Your task to perform on an android device: Open Wikipedia Image 0: 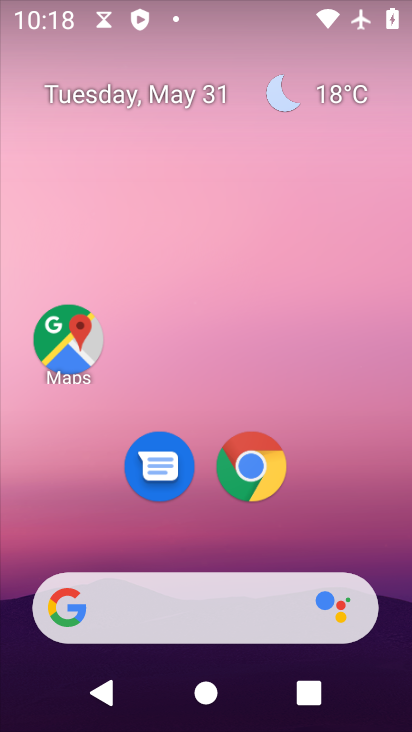
Step 0: drag from (393, 577) to (281, 1)
Your task to perform on an android device: Open Wikipedia Image 1: 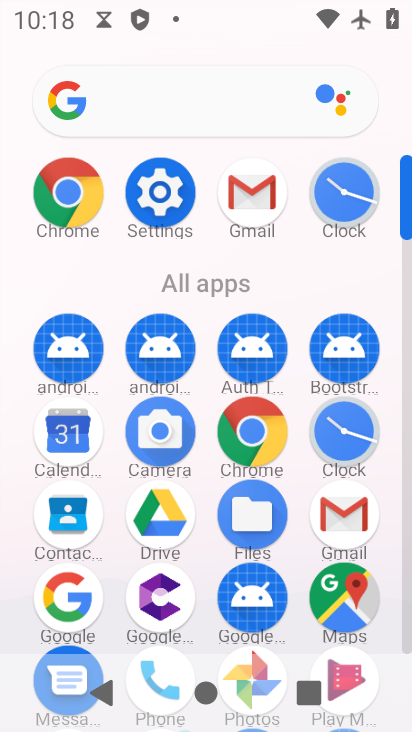
Step 1: click (247, 429)
Your task to perform on an android device: Open Wikipedia Image 2: 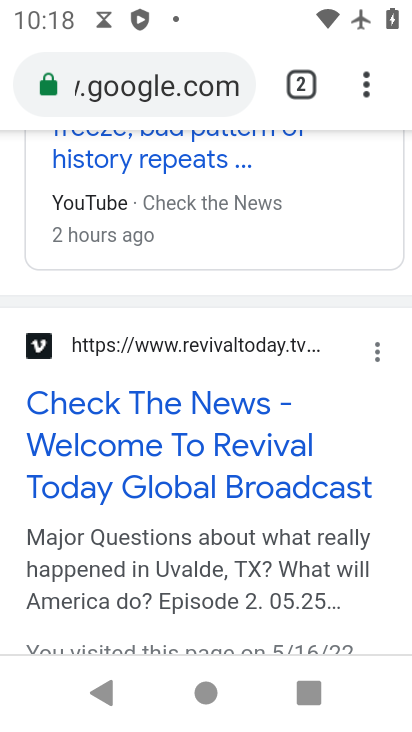
Step 2: click (155, 81)
Your task to perform on an android device: Open Wikipedia Image 3: 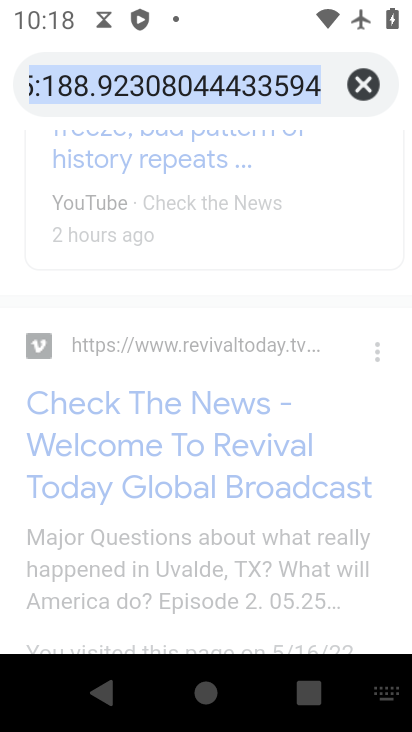
Step 3: click (362, 82)
Your task to perform on an android device: Open Wikipedia Image 4: 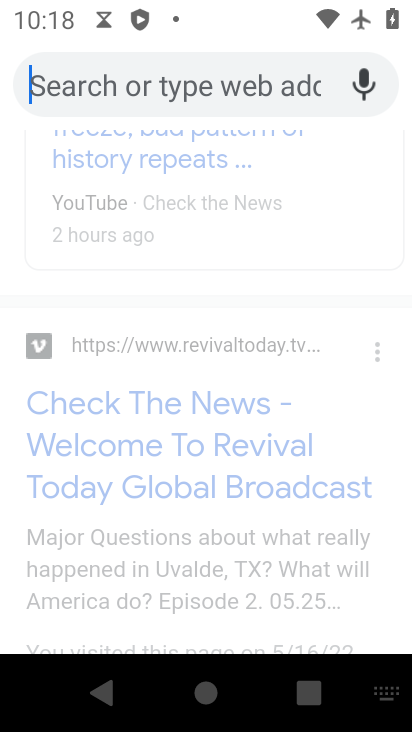
Step 4: type "Wikipedia"
Your task to perform on an android device: Open Wikipedia Image 5: 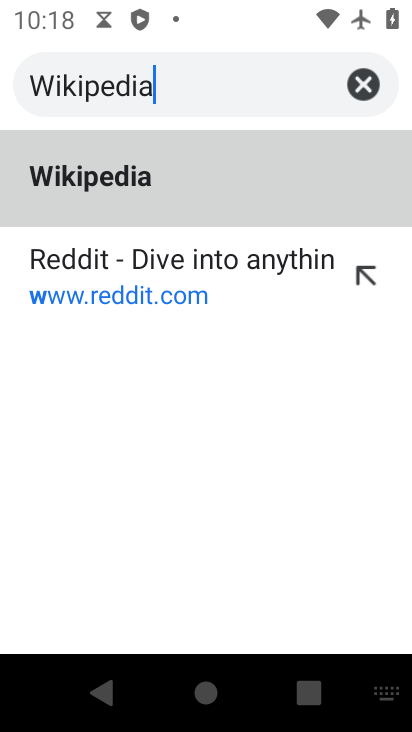
Step 5: type ""
Your task to perform on an android device: Open Wikipedia Image 6: 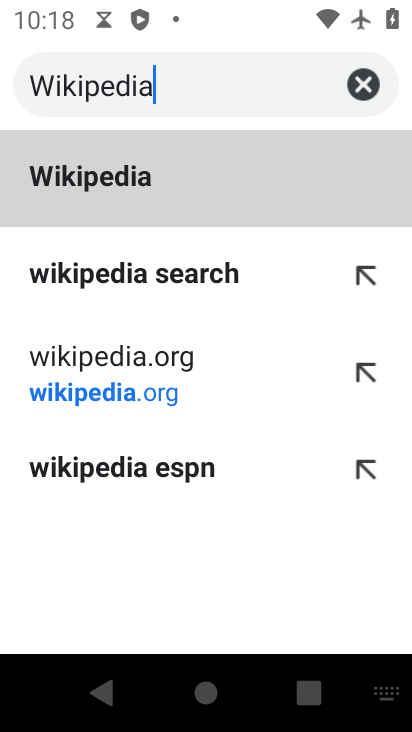
Step 6: click (147, 376)
Your task to perform on an android device: Open Wikipedia Image 7: 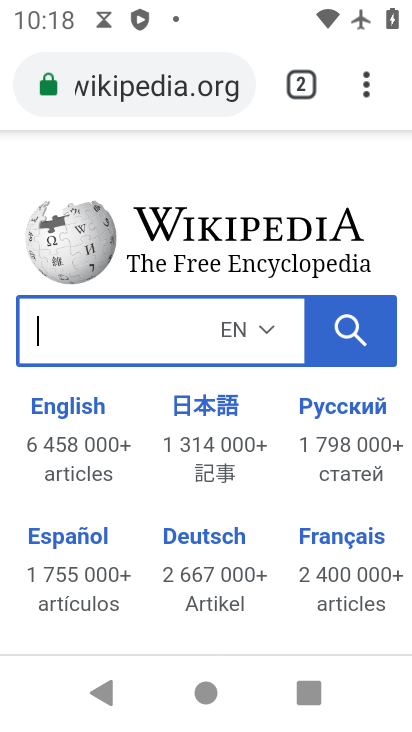
Step 7: task complete